Your task to perform on an android device: Open the map Image 0: 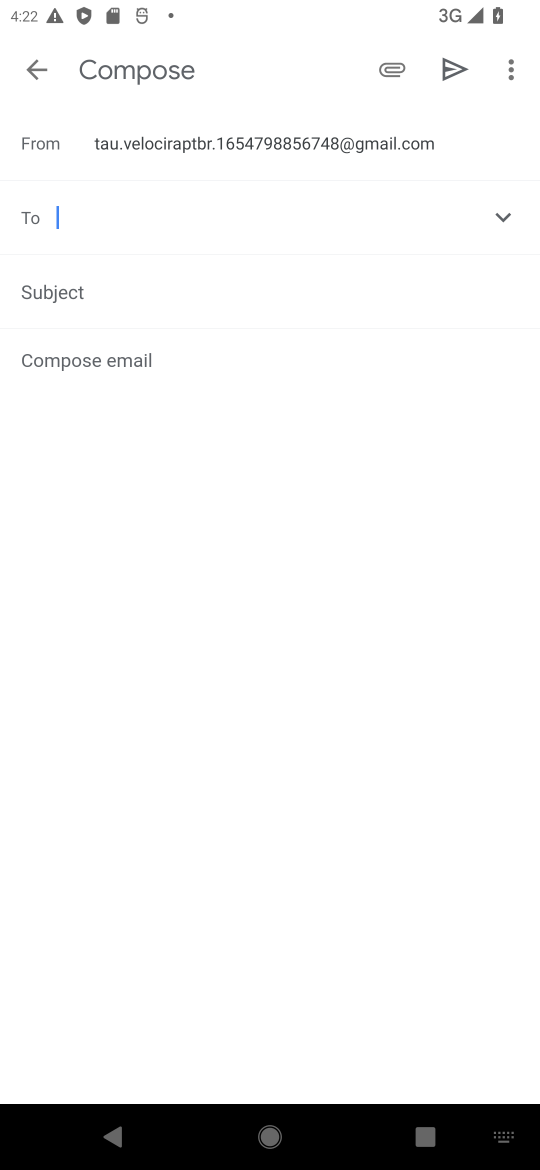
Step 0: press home button
Your task to perform on an android device: Open the map Image 1: 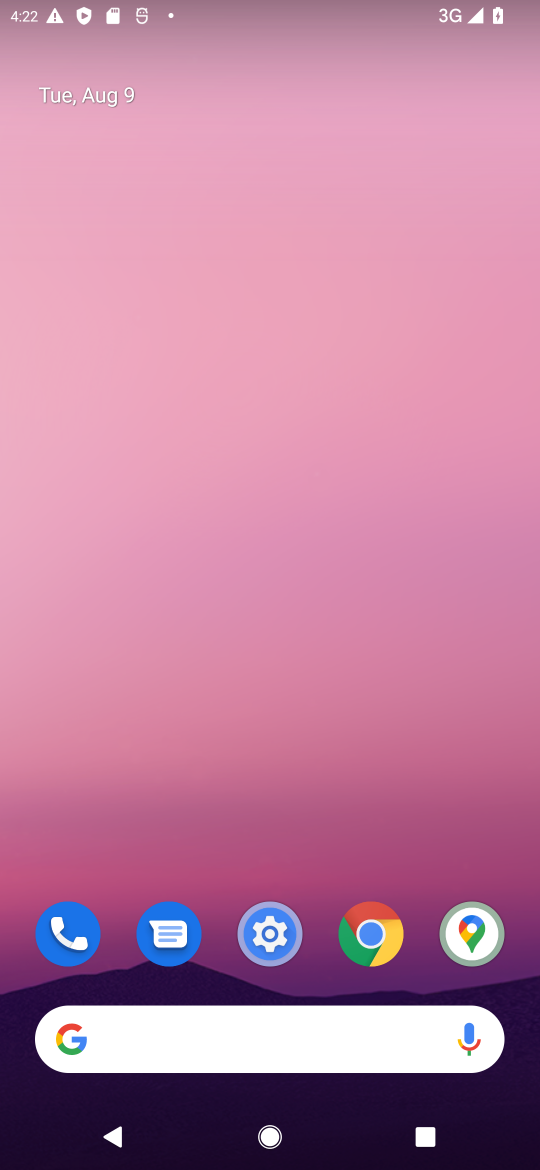
Step 1: click (462, 949)
Your task to perform on an android device: Open the map Image 2: 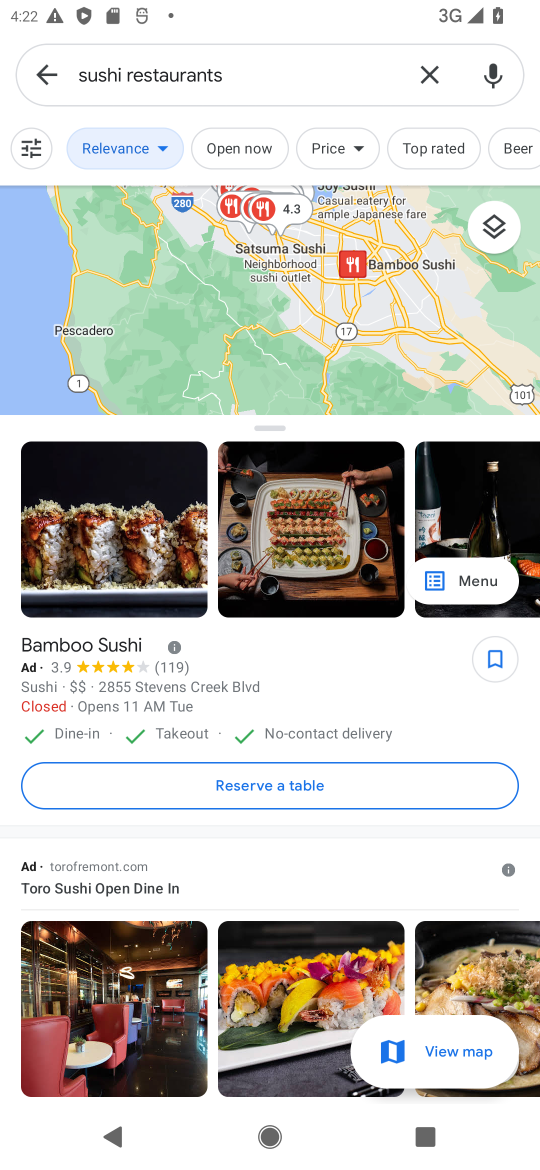
Step 2: task complete